Your task to perform on an android device: show emergency info Image 0: 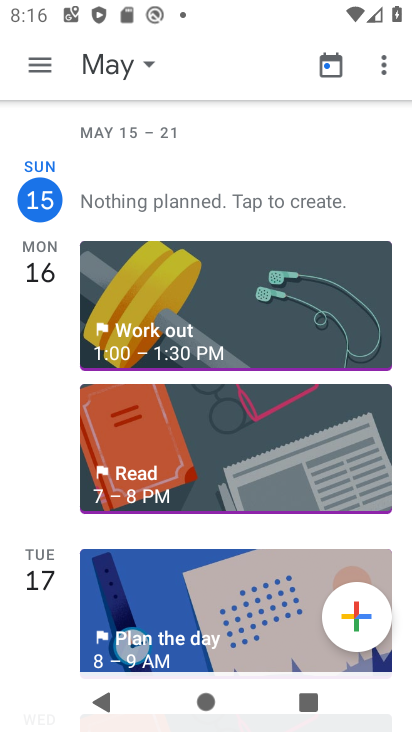
Step 0: press home button
Your task to perform on an android device: show emergency info Image 1: 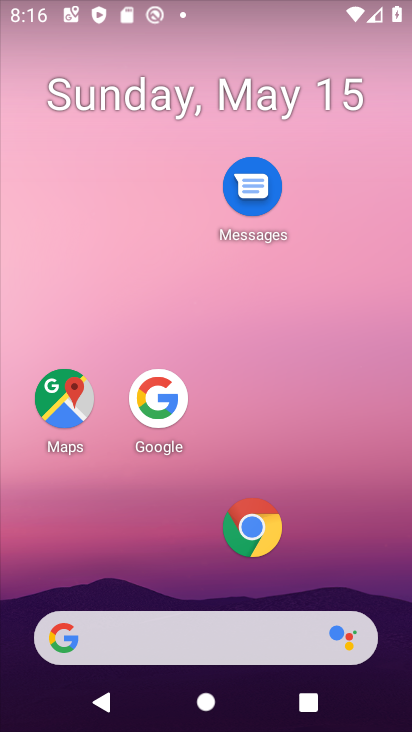
Step 1: drag from (160, 637) to (313, 192)
Your task to perform on an android device: show emergency info Image 2: 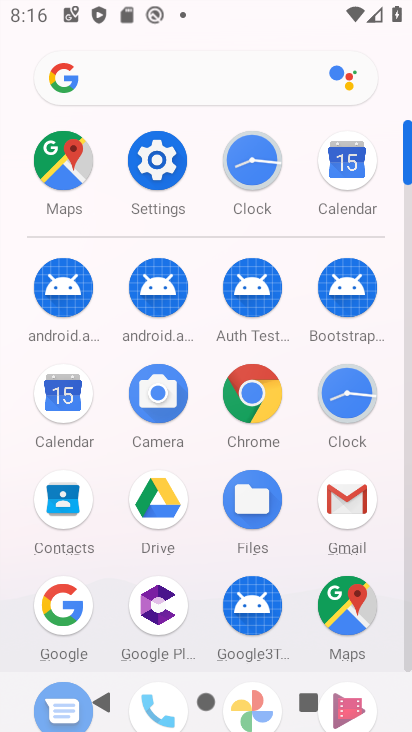
Step 2: click (164, 164)
Your task to perform on an android device: show emergency info Image 3: 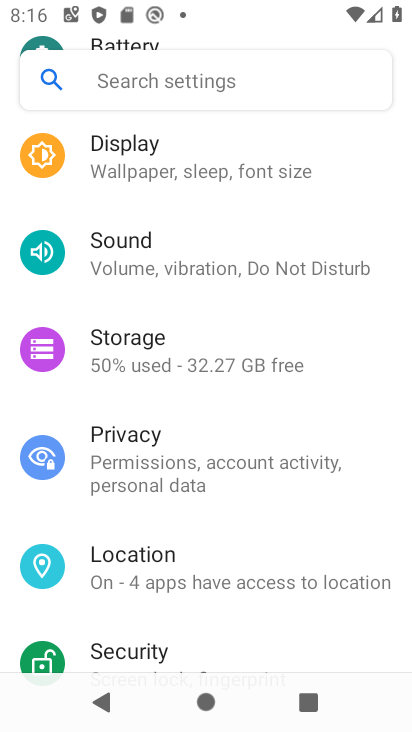
Step 3: drag from (198, 546) to (359, 4)
Your task to perform on an android device: show emergency info Image 4: 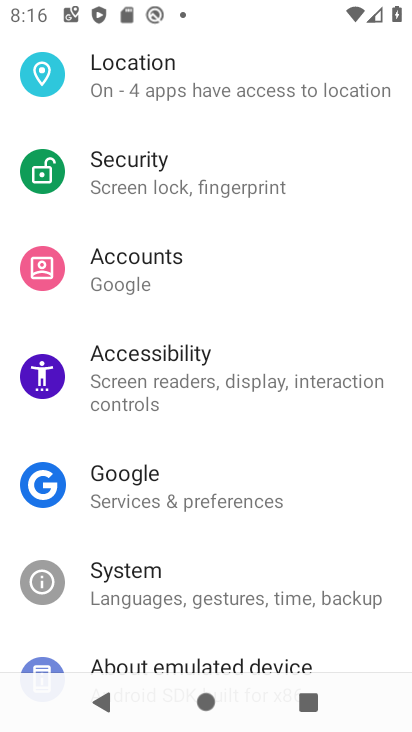
Step 4: drag from (215, 568) to (331, 173)
Your task to perform on an android device: show emergency info Image 5: 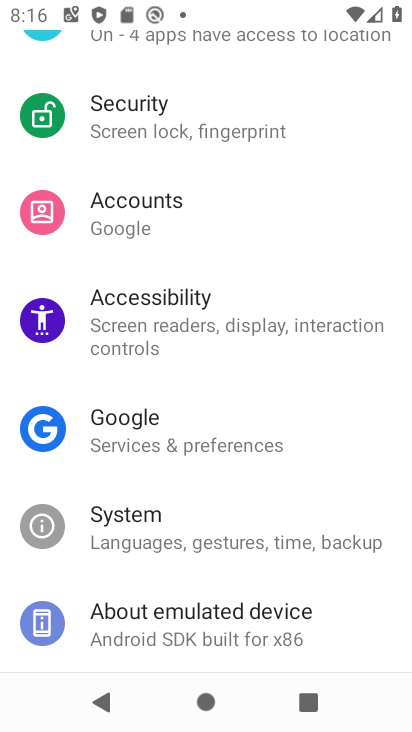
Step 5: click (201, 613)
Your task to perform on an android device: show emergency info Image 6: 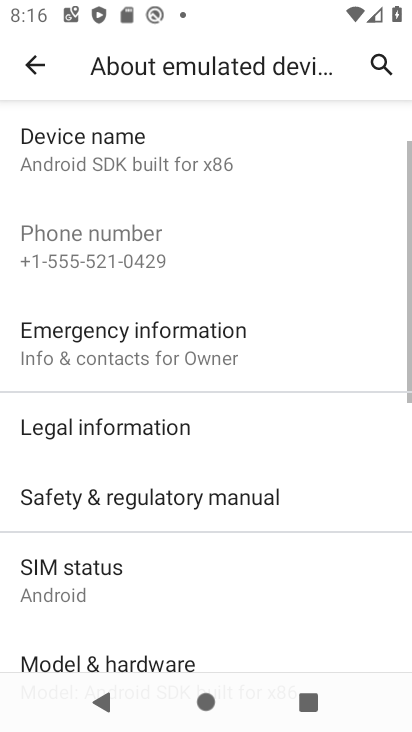
Step 6: click (151, 338)
Your task to perform on an android device: show emergency info Image 7: 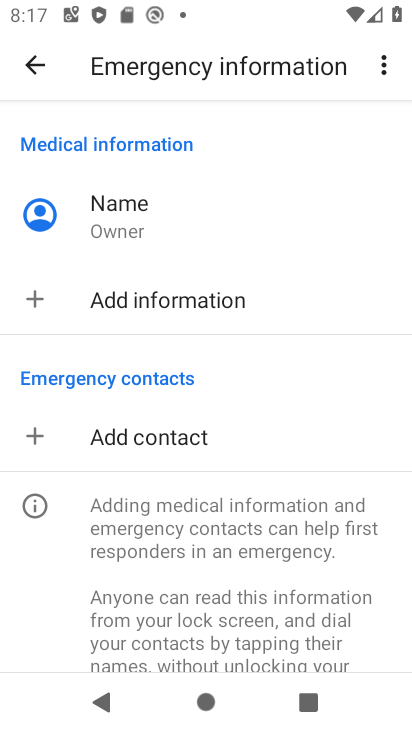
Step 7: task complete